Your task to perform on an android device: Open sound settings Image 0: 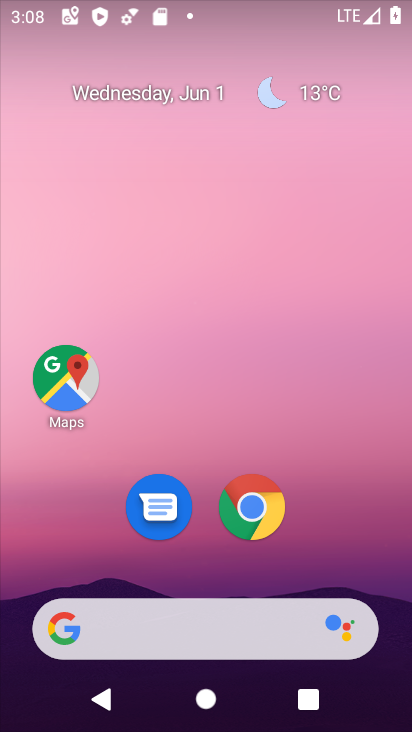
Step 0: drag from (326, 543) to (85, 88)
Your task to perform on an android device: Open sound settings Image 1: 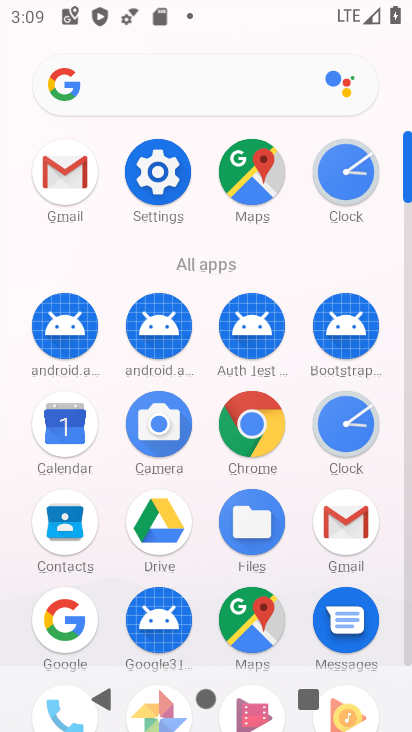
Step 1: click (174, 185)
Your task to perform on an android device: Open sound settings Image 2: 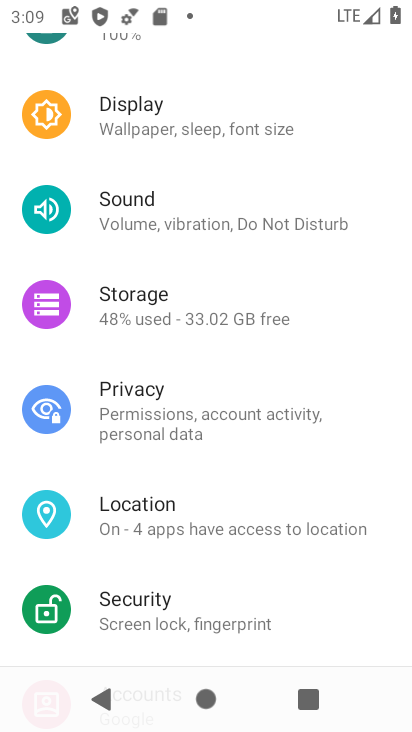
Step 2: click (194, 225)
Your task to perform on an android device: Open sound settings Image 3: 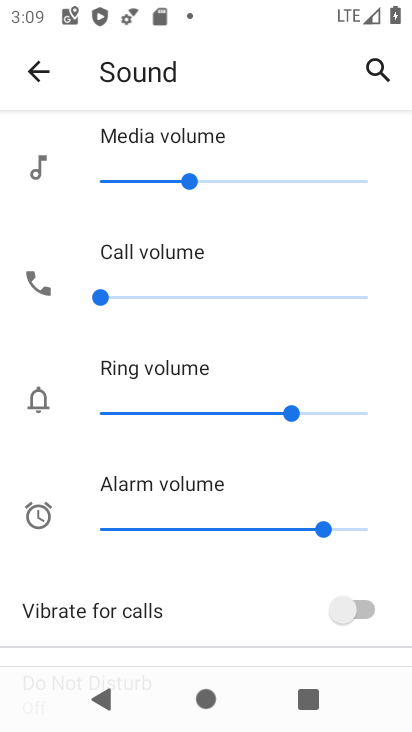
Step 3: task complete